Your task to perform on an android device: check the backup settings in the google photos Image 0: 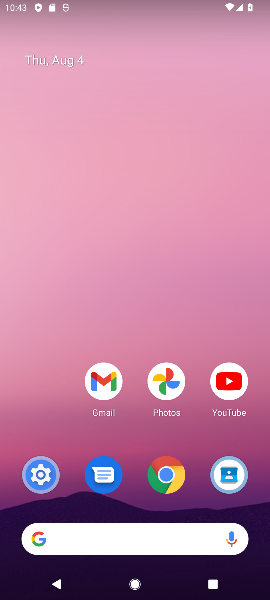
Step 0: click (164, 390)
Your task to perform on an android device: check the backup settings in the google photos Image 1: 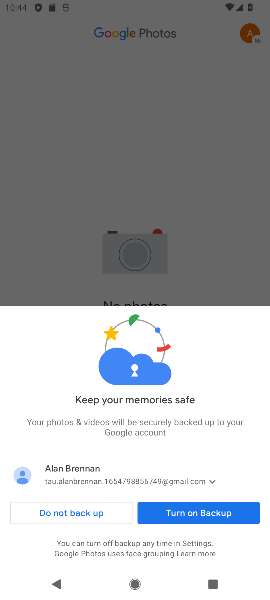
Step 1: click (170, 519)
Your task to perform on an android device: check the backup settings in the google photos Image 2: 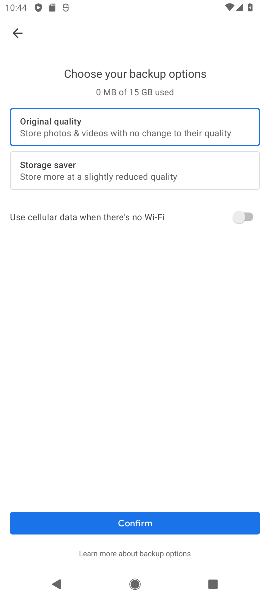
Step 2: click (206, 519)
Your task to perform on an android device: check the backup settings in the google photos Image 3: 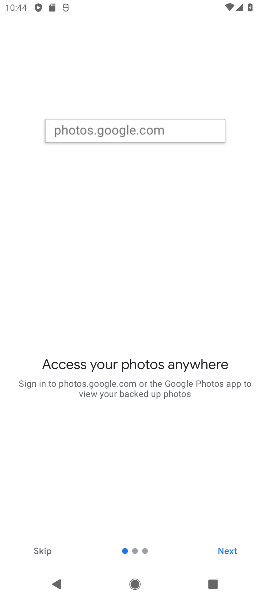
Step 3: click (49, 551)
Your task to perform on an android device: check the backup settings in the google photos Image 4: 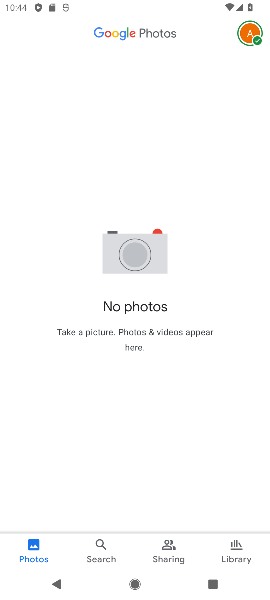
Step 4: click (246, 37)
Your task to perform on an android device: check the backup settings in the google photos Image 5: 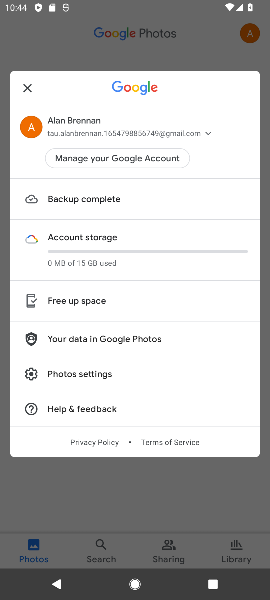
Step 5: click (119, 128)
Your task to perform on an android device: check the backup settings in the google photos Image 6: 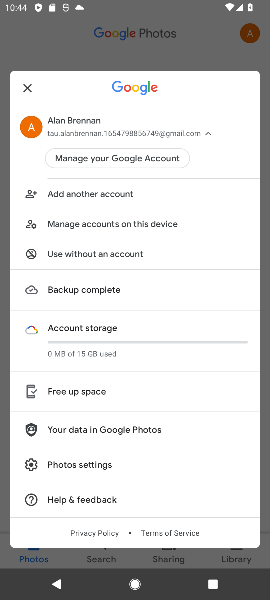
Step 6: click (118, 460)
Your task to perform on an android device: check the backup settings in the google photos Image 7: 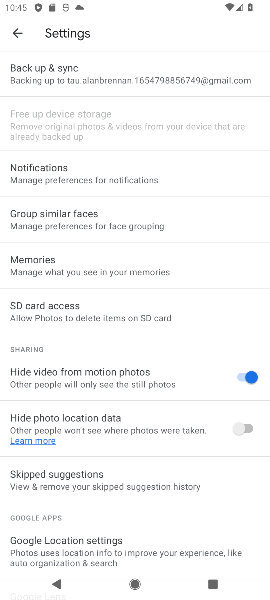
Step 7: click (106, 71)
Your task to perform on an android device: check the backup settings in the google photos Image 8: 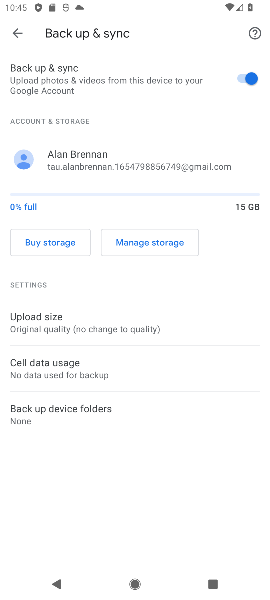
Step 8: task complete